Your task to perform on an android device: delete the emails in spam in the gmail app Image 0: 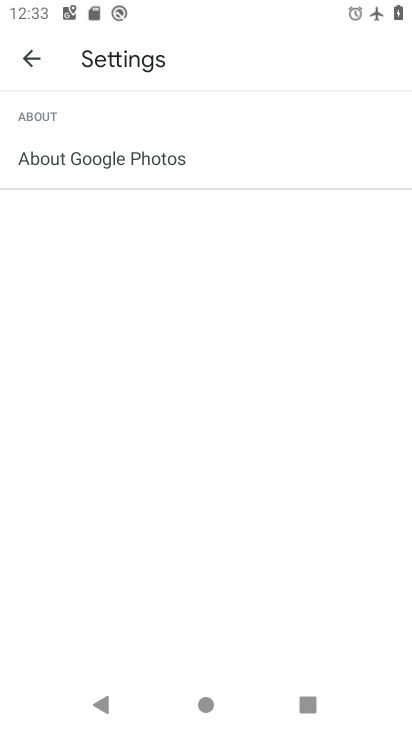
Step 0: press back button
Your task to perform on an android device: delete the emails in spam in the gmail app Image 1: 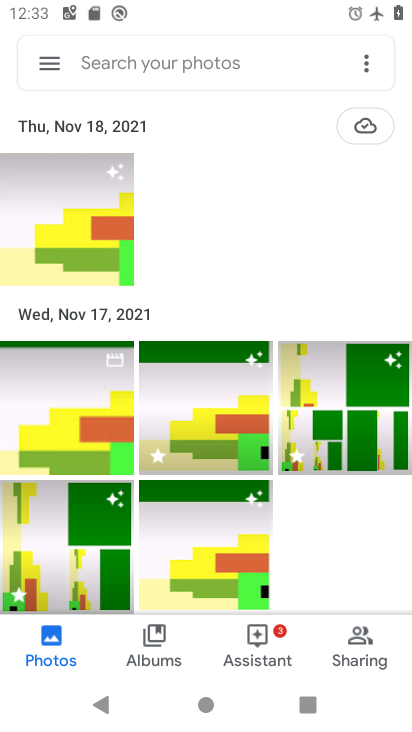
Step 1: press home button
Your task to perform on an android device: delete the emails in spam in the gmail app Image 2: 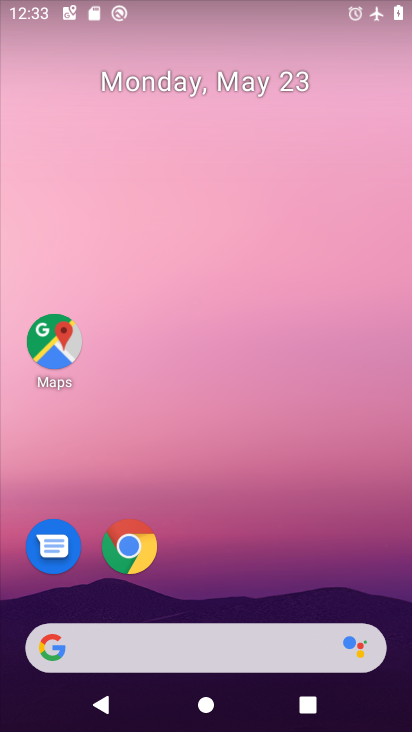
Step 2: drag from (252, 566) to (307, 103)
Your task to perform on an android device: delete the emails in spam in the gmail app Image 3: 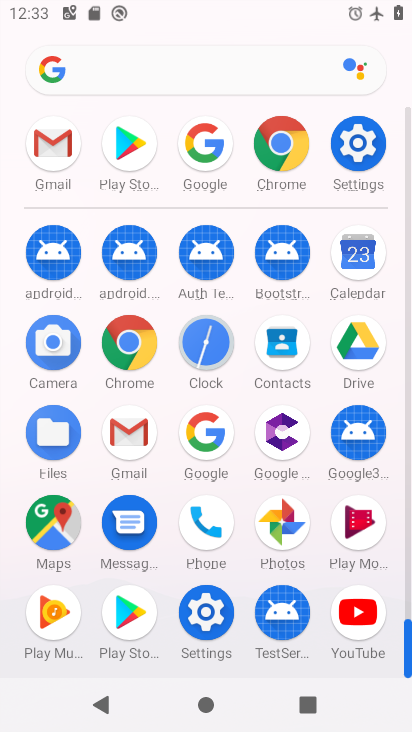
Step 3: click (131, 452)
Your task to perform on an android device: delete the emails in spam in the gmail app Image 4: 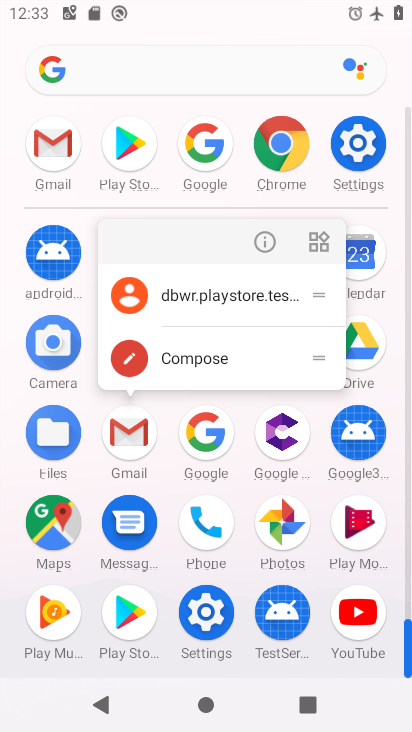
Step 4: click (130, 440)
Your task to perform on an android device: delete the emails in spam in the gmail app Image 5: 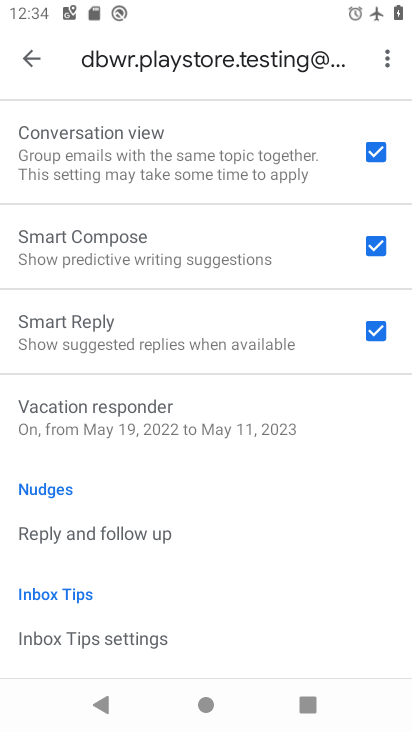
Step 5: click (31, 71)
Your task to perform on an android device: delete the emails in spam in the gmail app Image 6: 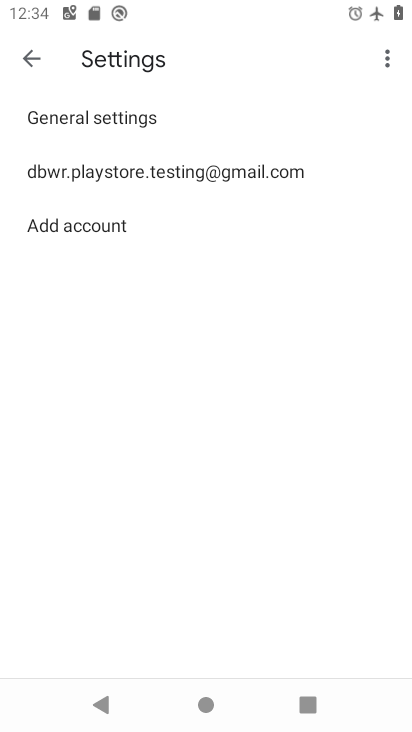
Step 6: click (31, 71)
Your task to perform on an android device: delete the emails in spam in the gmail app Image 7: 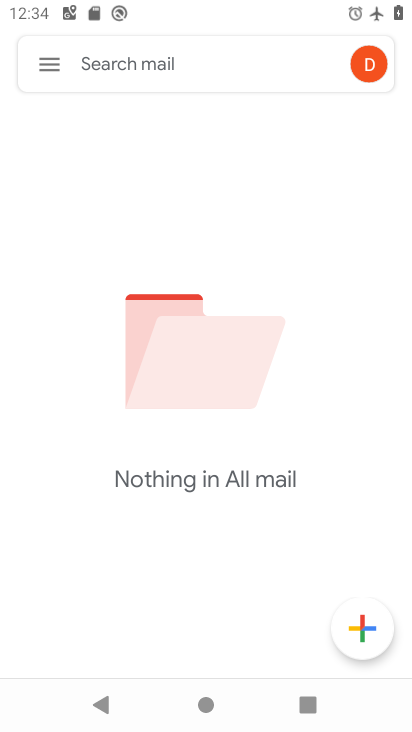
Step 7: click (50, 65)
Your task to perform on an android device: delete the emails in spam in the gmail app Image 8: 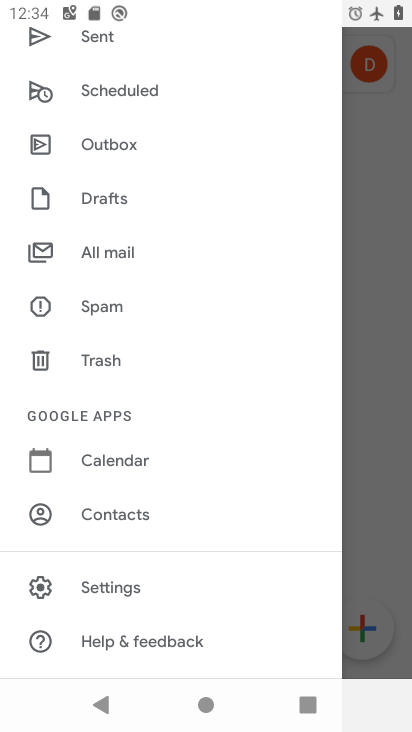
Step 8: click (127, 308)
Your task to perform on an android device: delete the emails in spam in the gmail app Image 9: 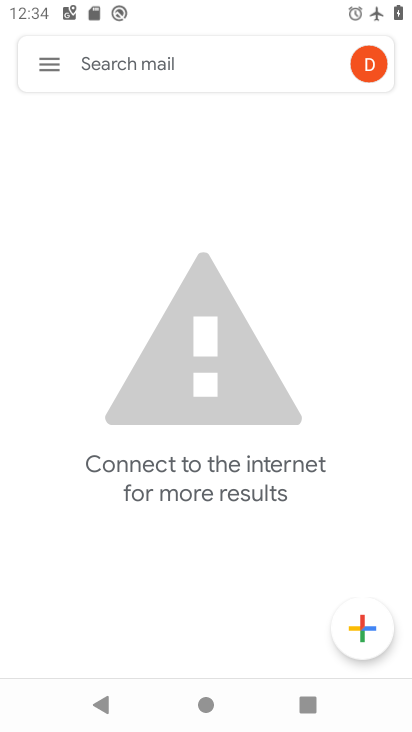
Step 9: task complete